Your task to perform on an android device: toggle javascript in the chrome app Image 0: 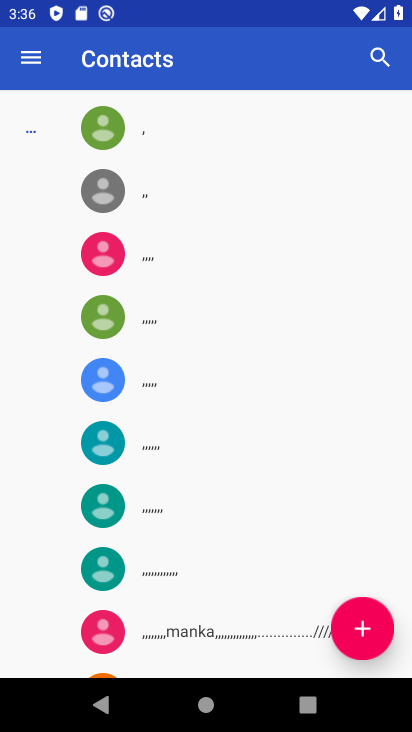
Step 0: press home button
Your task to perform on an android device: toggle javascript in the chrome app Image 1: 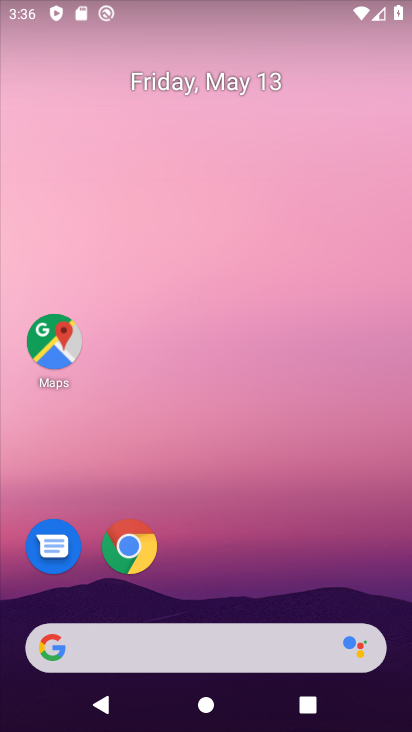
Step 1: drag from (227, 720) to (220, 100)
Your task to perform on an android device: toggle javascript in the chrome app Image 2: 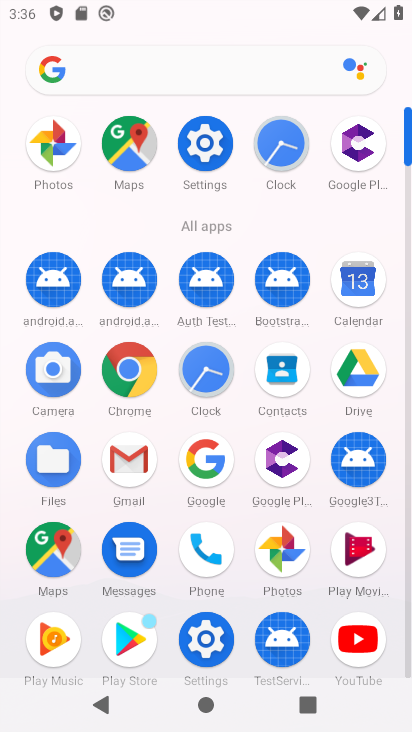
Step 2: click (123, 368)
Your task to perform on an android device: toggle javascript in the chrome app Image 3: 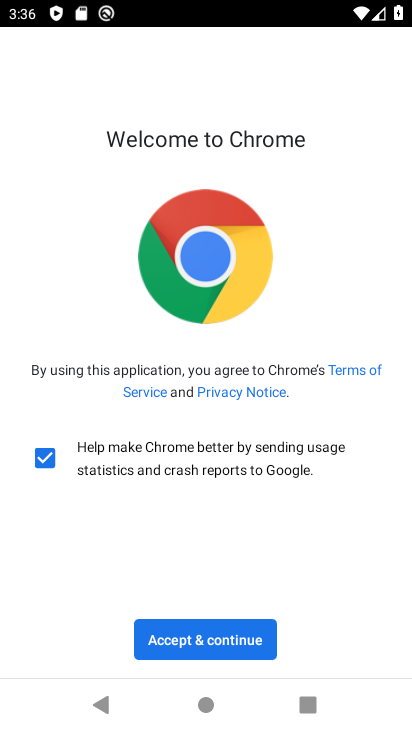
Step 3: click (223, 640)
Your task to perform on an android device: toggle javascript in the chrome app Image 4: 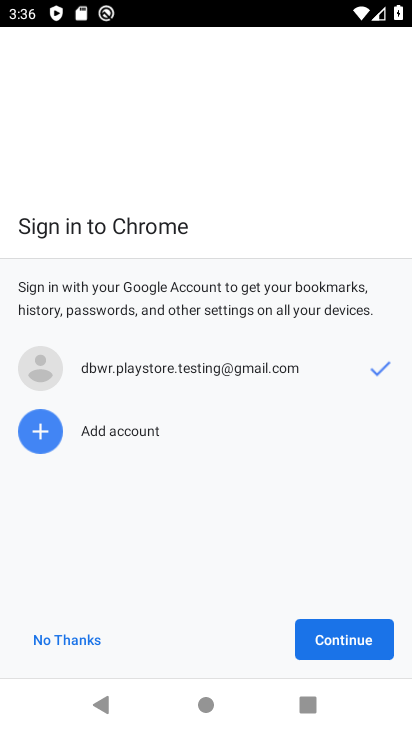
Step 4: click (354, 638)
Your task to perform on an android device: toggle javascript in the chrome app Image 5: 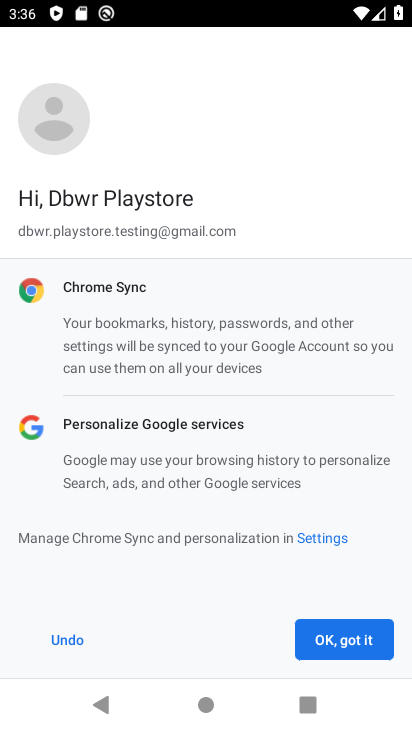
Step 5: click (360, 644)
Your task to perform on an android device: toggle javascript in the chrome app Image 6: 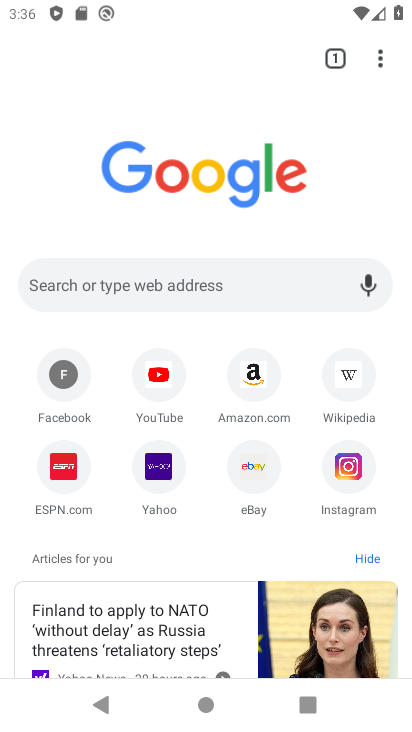
Step 6: click (381, 65)
Your task to perform on an android device: toggle javascript in the chrome app Image 7: 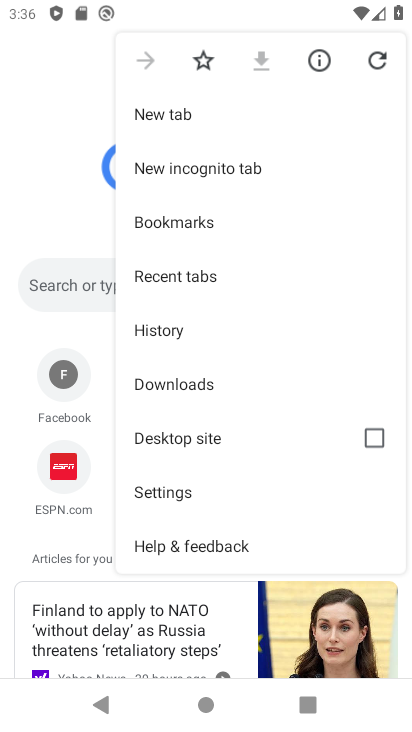
Step 7: click (168, 490)
Your task to perform on an android device: toggle javascript in the chrome app Image 8: 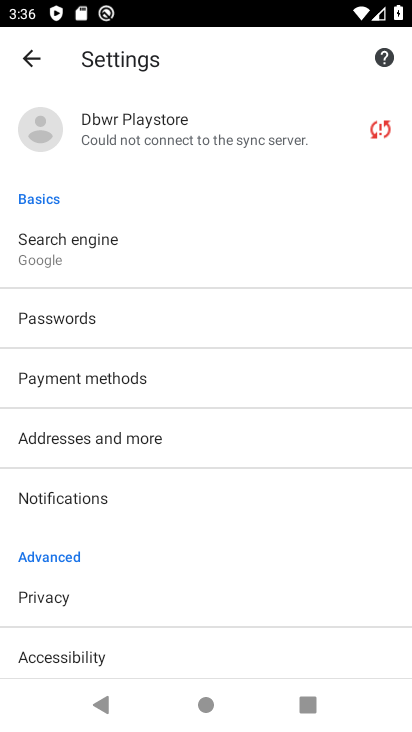
Step 8: drag from (107, 606) to (102, 264)
Your task to perform on an android device: toggle javascript in the chrome app Image 9: 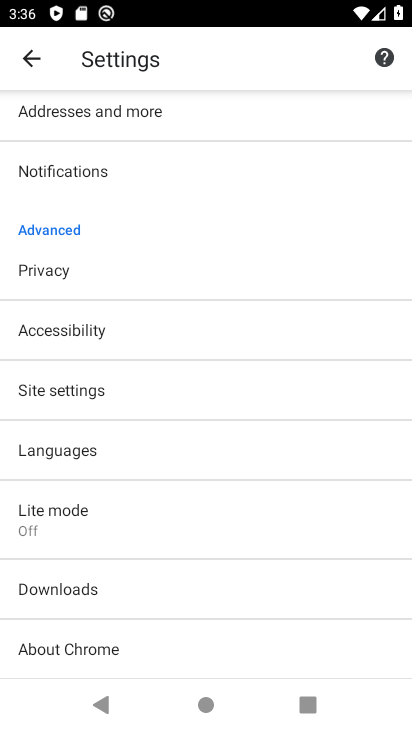
Step 9: click (64, 392)
Your task to perform on an android device: toggle javascript in the chrome app Image 10: 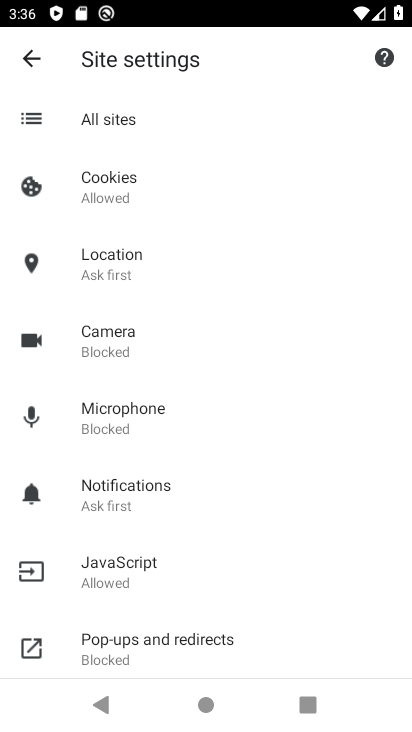
Step 10: click (109, 562)
Your task to perform on an android device: toggle javascript in the chrome app Image 11: 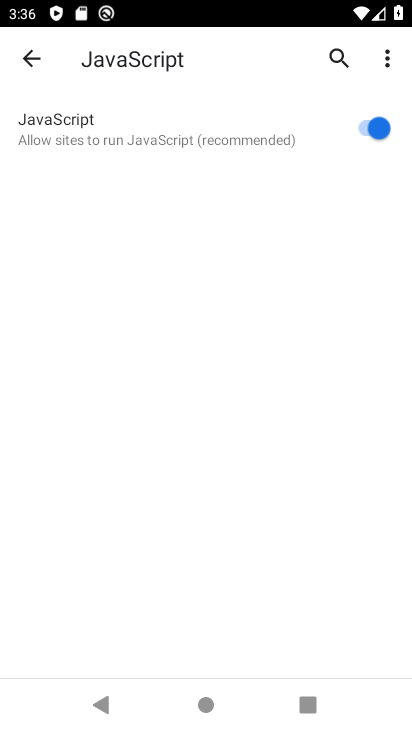
Step 11: click (365, 128)
Your task to perform on an android device: toggle javascript in the chrome app Image 12: 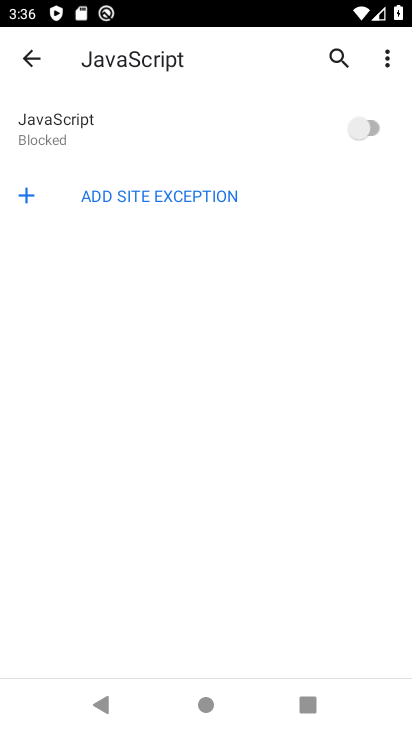
Step 12: task complete